Your task to perform on an android device: What's on my calendar today? Image 0: 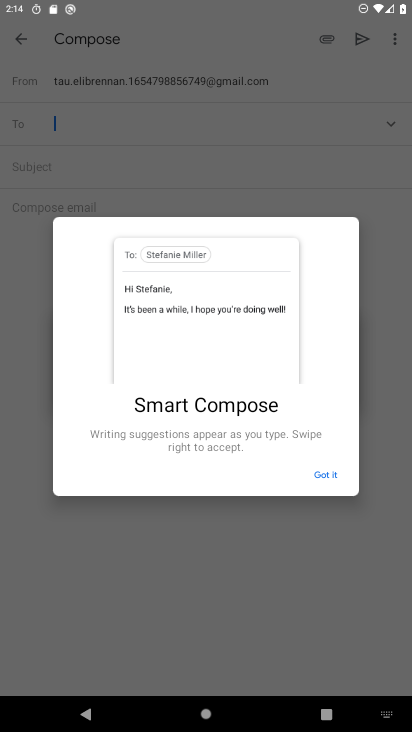
Step 0: press home button
Your task to perform on an android device: What's on my calendar today? Image 1: 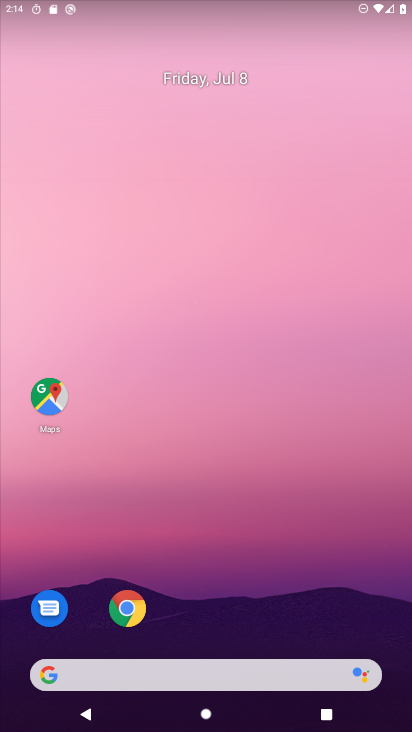
Step 1: drag from (222, 593) to (220, 149)
Your task to perform on an android device: What's on my calendar today? Image 2: 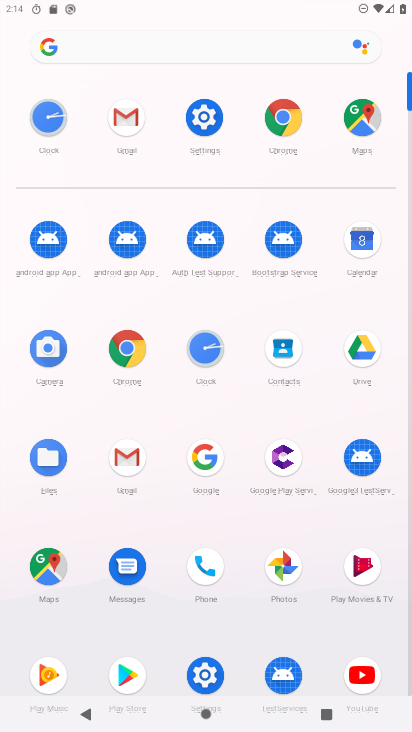
Step 2: click (362, 243)
Your task to perform on an android device: What's on my calendar today? Image 3: 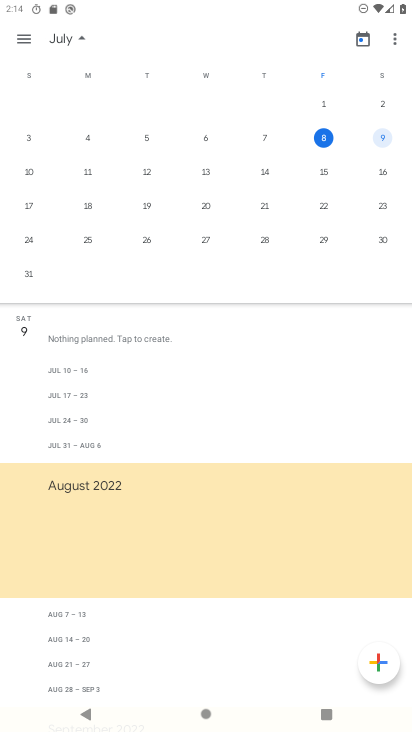
Step 3: click (323, 134)
Your task to perform on an android device: What's on my calendar today? Image 4: 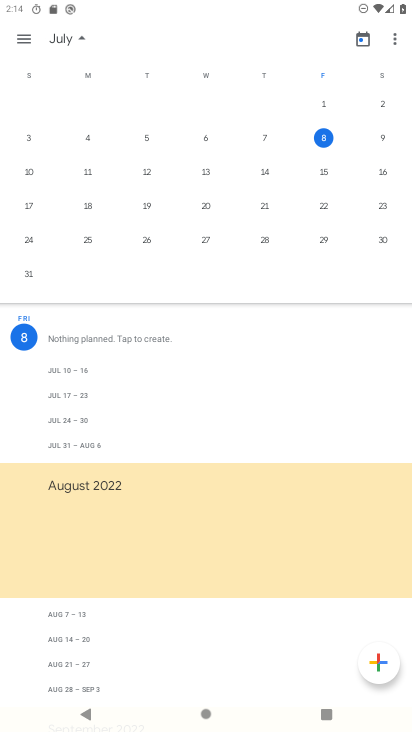
Step 4: click (323, 134)
Your task to perform on an android device: What's on my calendar today? Image 5: 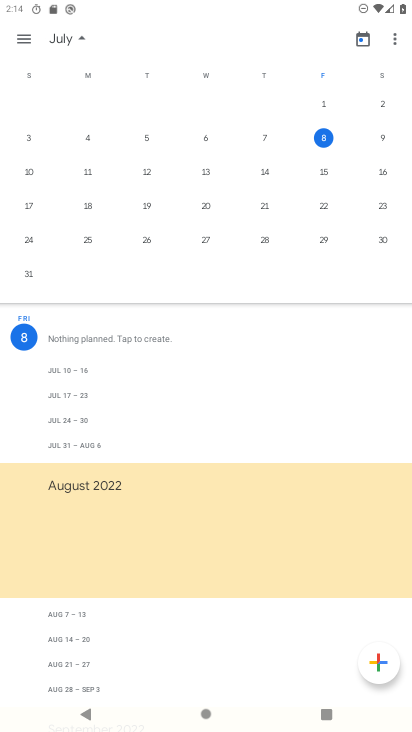
Step 5: task complete